Your task to perform on an android device: remove spam from my inbox in the gmail app Image 0: 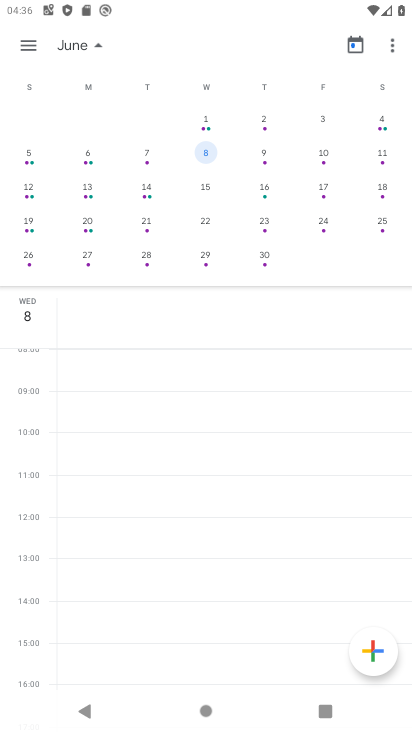
Step 0: press home button
Your task to perform on an android device: remove spam from my inbox in the gmail app Image 1: 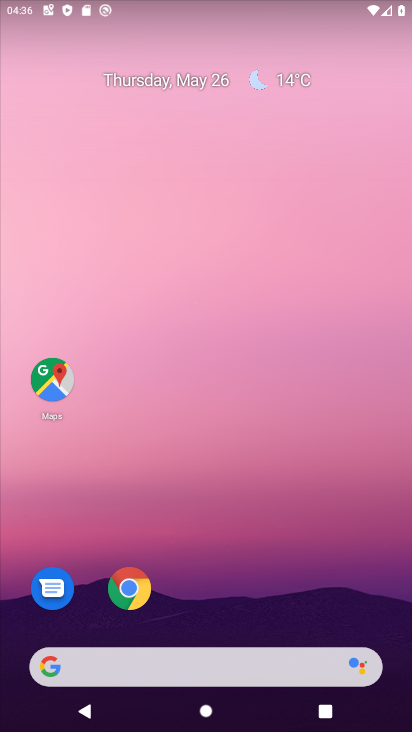
Step 1: drag from (233, 592) to (258, 190)
Your task to perform on an android device: remove spam from my inbox in the gmail app Image 2: 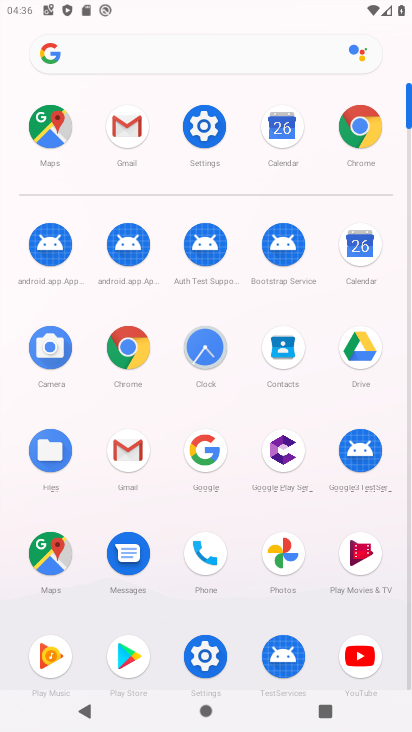
Step 2: click (132, 153)
Your task to perform on an android device: remove spam from my inbox in the gmail app Image 3: 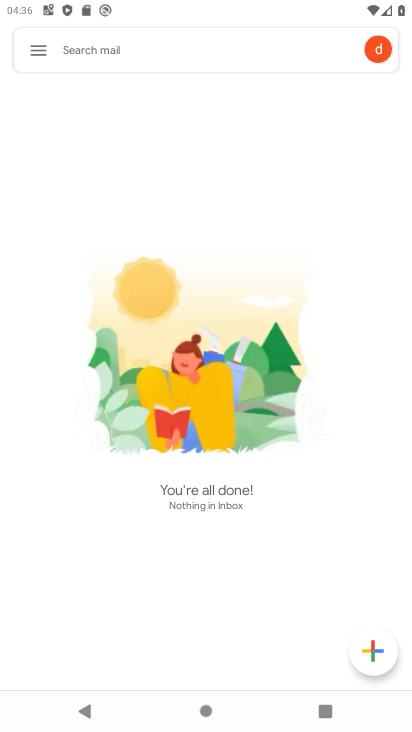
Step 3: click (44, 51)
Your task to perform on an android device: remove spam from my inbox in the gmail app Image 4: 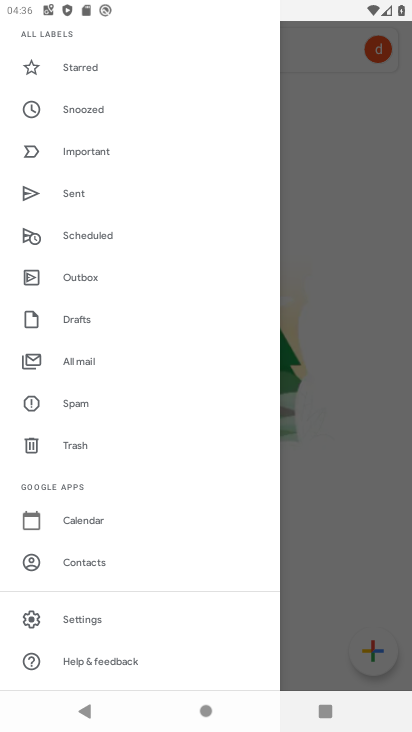
Step 4: click (96, 402)
Your task to perform on an android device: remove spam from my inbox in the gmail app Image 5: 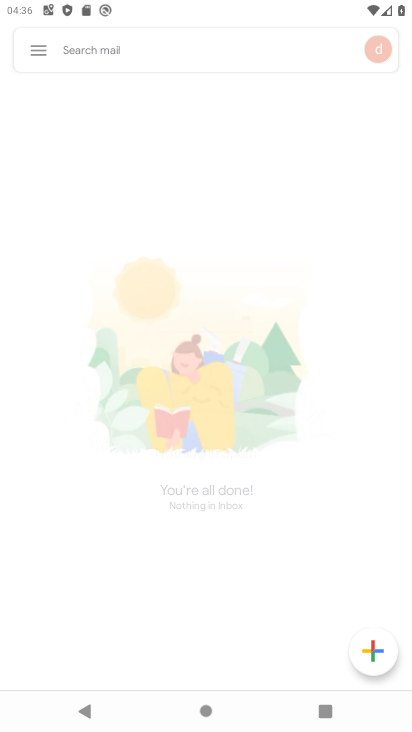
Step 5: task complete